Your task to perform on an android device: turn on data saver in the chrome app Image 0: 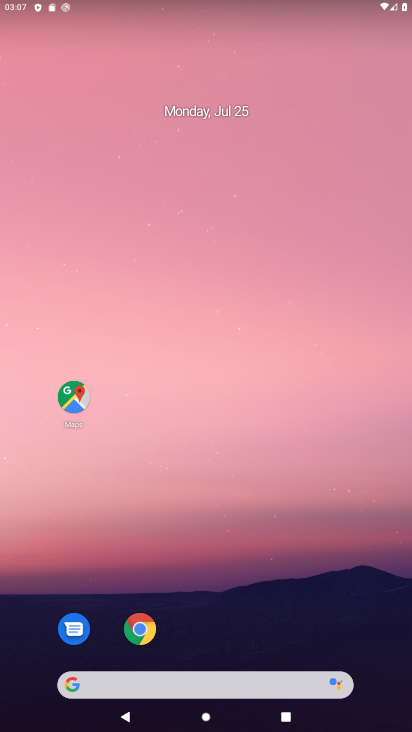
Step 0: click (145, 630)
Your task to perform on an android device: turn on data saver in the chrome app Image 1: 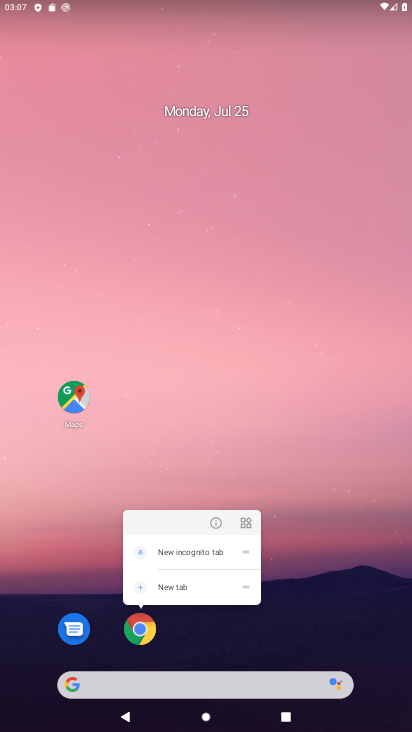
Step 1: click (145, 630)
Your task to perform on an android device: turn on data saver in the chrome app Image 2: 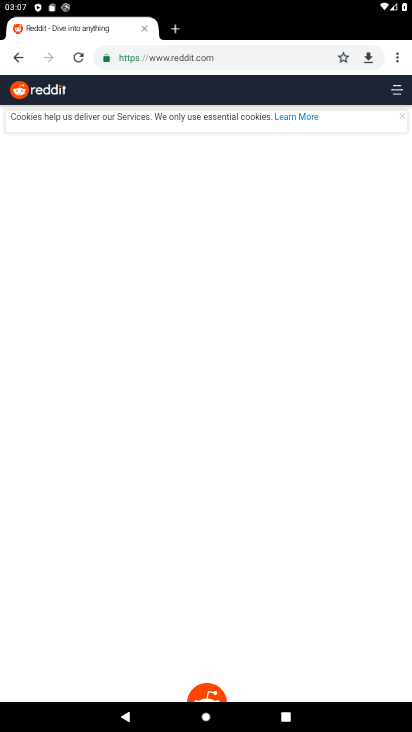
Step 2: drag from (395, 54) to (278, 384)
Your task to perform on an android device: turn on data saver in the chrome app Image 3: 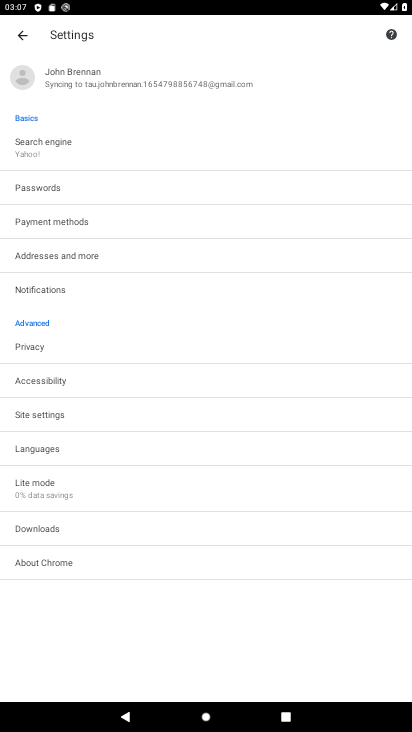
Step 3: click (26, 489)
Your task to perform on an android device: turn on data saver in the chrome app Image 4: 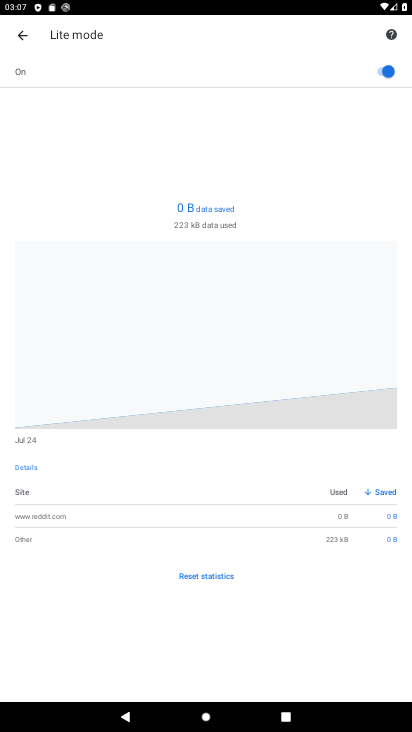
Step 4: task complete